Your task to perform on an android device: open app "Microsoft Excel" (install if not already installed) and enter user name: "kidnappers@icloud.com" and password: "Bessemerizes" Image 0: 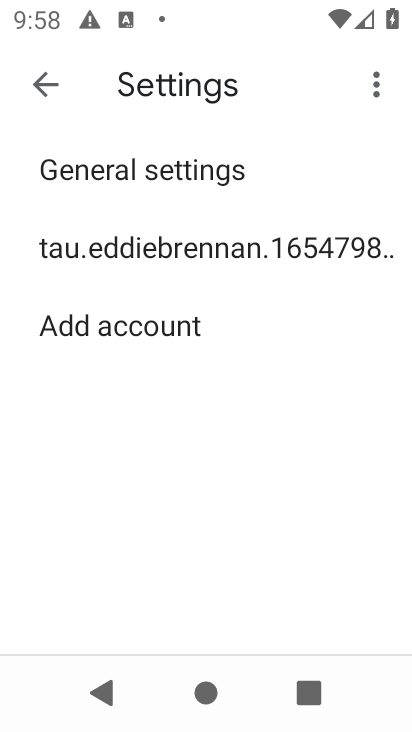
Step 0: press home button
Your task to perform on an android device: open app "Microsoft Excel" (install if not already installed) and enter user name: "kidnappers@icloud.com" and password: "Bessemerizes" Image 1: 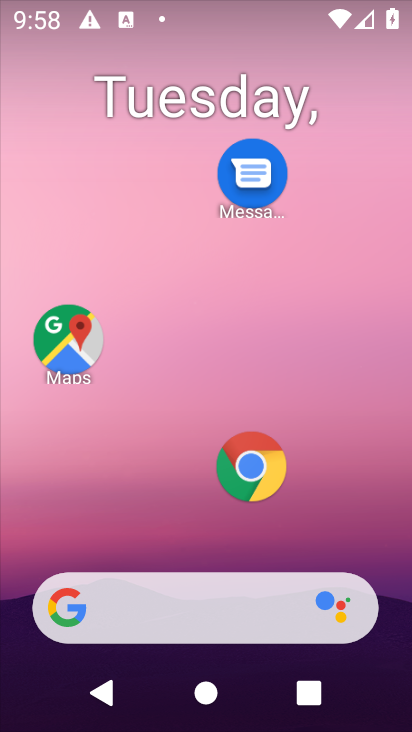
Step 1: drag from (156, 509) to (215, 6)
Your task to perform on an android device: open app "Microsoft Excel" (install if not already installed) and enter user name: "kidnappers@icloud.com" and password: "Bessemerizes" Image 2: 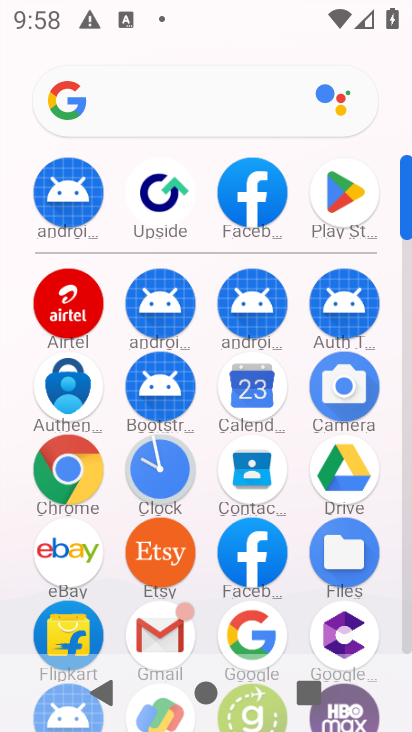
Step 2: click (341, 201)
Your task to perform on an android device: open app "Microsoft Excel" (install if not already installed) and enter user name: "kidnappers@icloud.com" and password: "Bessemerizes" Image 3: 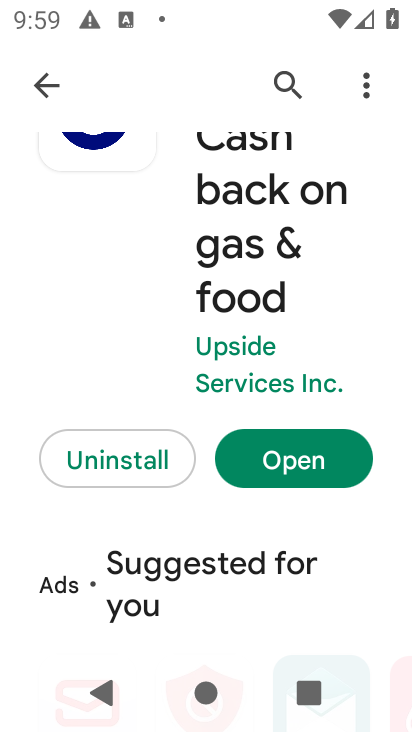
Step 3: click (290, 75)
Your task to perform on an android device: open app "Microsoft Excel" (install if not already installed) and enter user name: "kidnappers@icloud.com" and password: "Bessemerizes" Image 4: 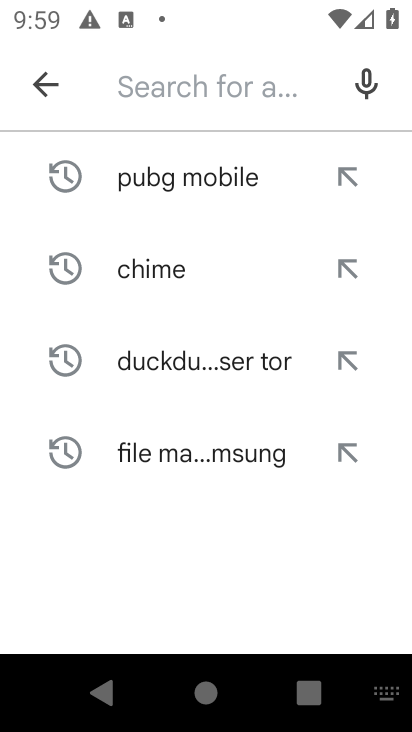
Step 4: click (187, 102)
Your task to perform on an android device: open app "Microsoft Excel" (install if not already installed) and enter user name: "kidnappers@icloud.com" and password: "Bessemerizes" Image 5: 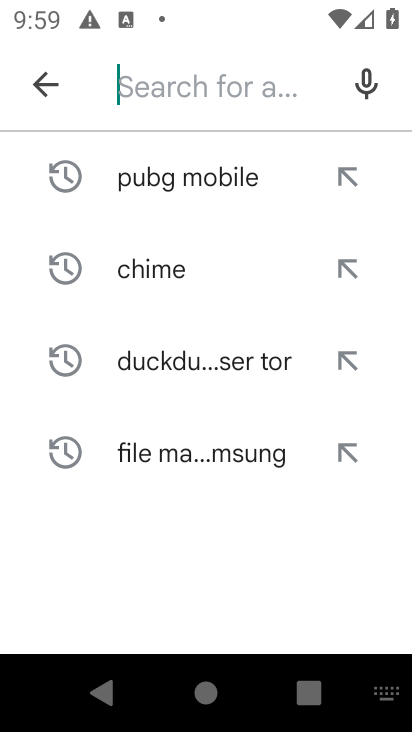
Step 5: type "Microsoft Excel"
Your task to perform on an android device: open app "Microsoft Excel" (install if not already installed) and enter user name: "kidnappers@icloud.com" and password: "Bessemerizes" Image 6: 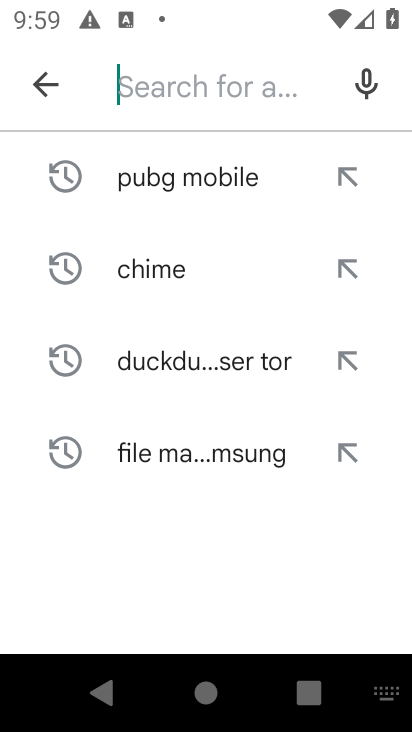
Step 6: click (94, 598)
Your task to perform on an android device: open app "Microsoft Excel" (install if not already installed) and enter user name: "kidnappers@icloud.com" and password: "Bessemerizes" Image 7: 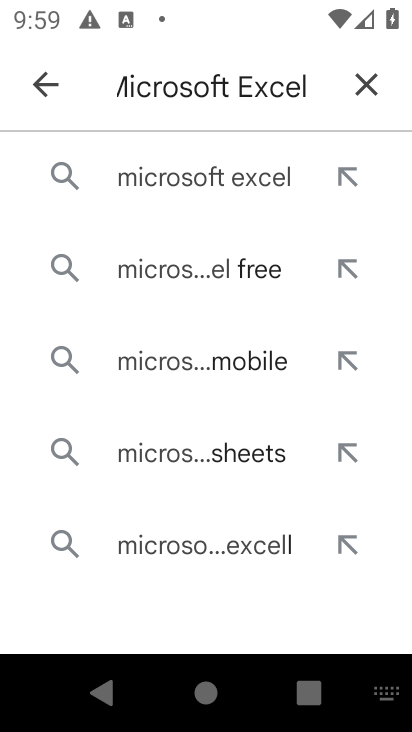
Step 7: click (213, 184)
Your task to perform on an android device: open app "Microsoft Excel" (install if not already installed) and enter user name: "kidnappers@icloud.com" and password: "Bessemerizes" Image 8: 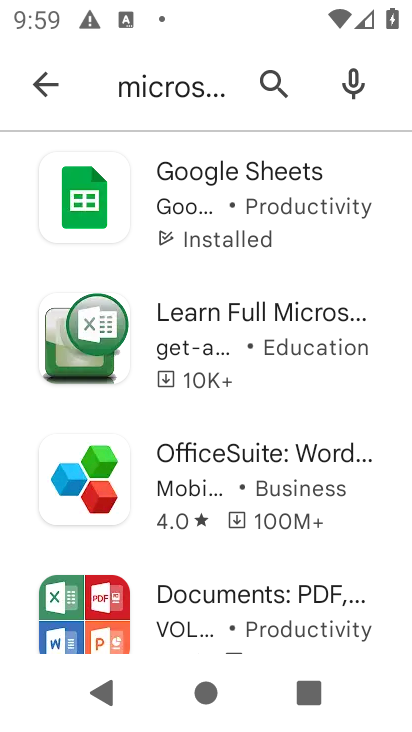
Step 8: task complete